Your task to perform on an android device: Open settings Image 0: 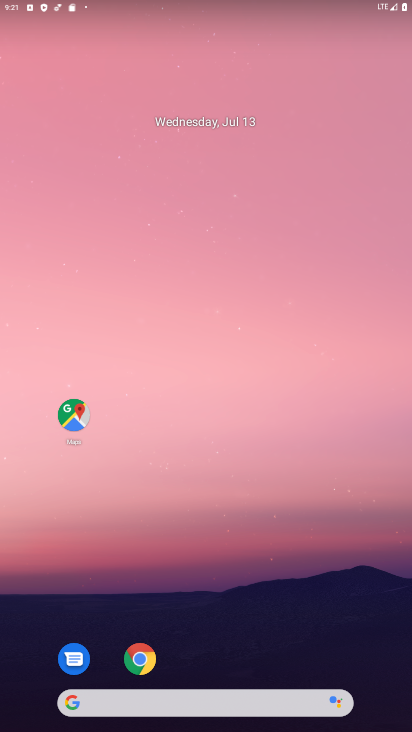
Step 0: drag from (399, 660) to (370, 319)
Your task to perform on an android device: Open settings Image 1: 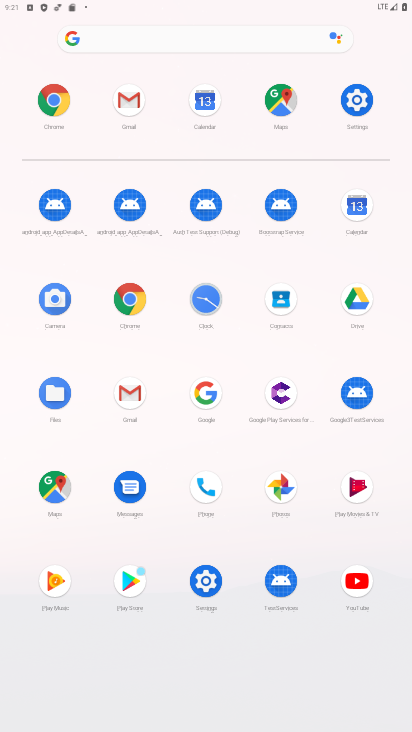
Step 1: click (204, 584)
Your task to perform on an android device: Open settings Image 2: 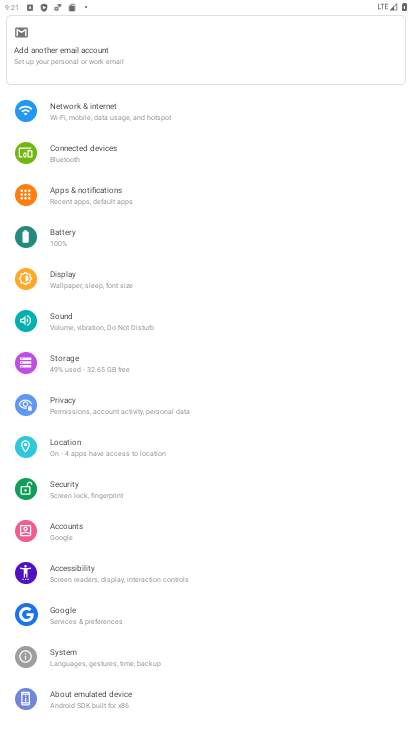
Step 2: task complete